Your task to perform on an android device: turn on the 12-hour format for clock Image 0: 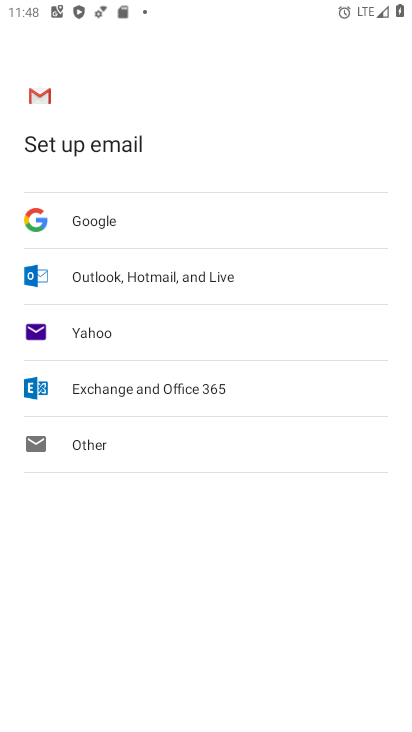
Step 0: press home button
Your task to perform on an android device: turn on the 12-hour format for clock Image 1: 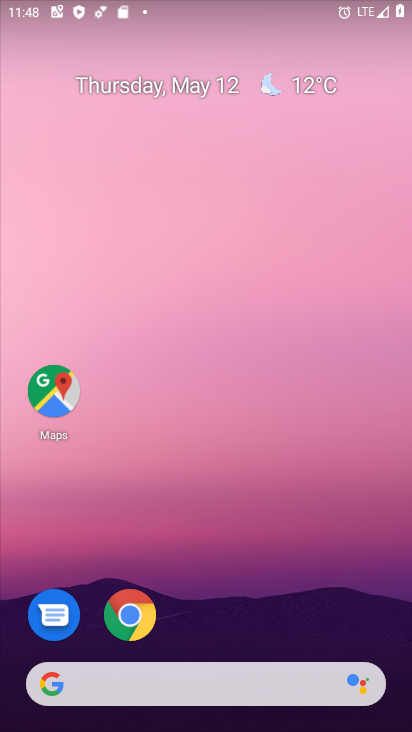
Step 1: drag from (214, 531) to (361, 66)
Your task to perform on an android device: turn on the 12-hour format for clock Image 2: 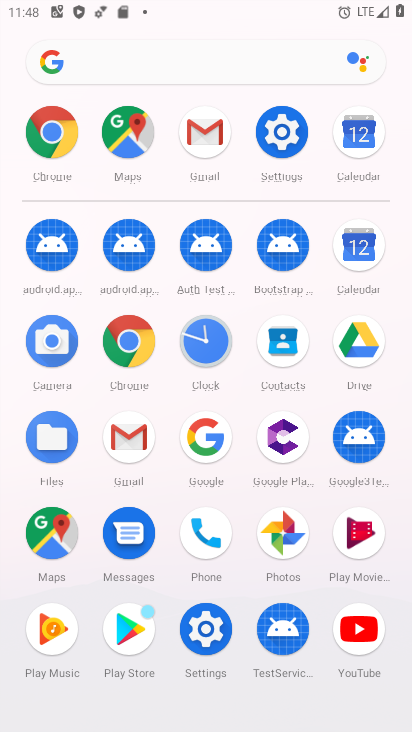
Step 2: click (189, 340)
Your task to perform on an android device: turn on the 12-hour format for clock Image 3: 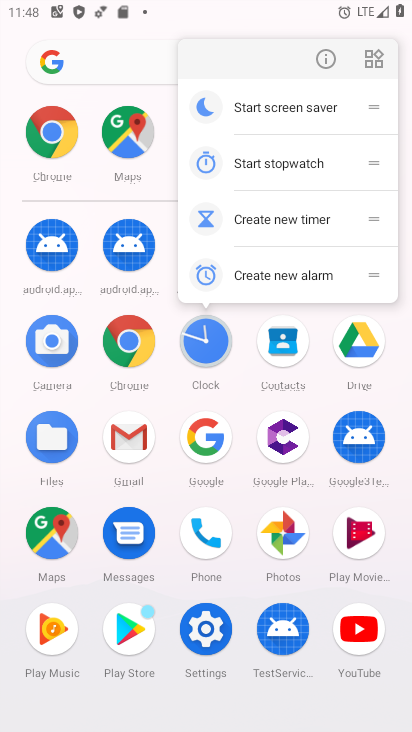
Step 3: click (213, 323)
Your task to perform on an android device: turn on the 12-hour format for clock Image 4: 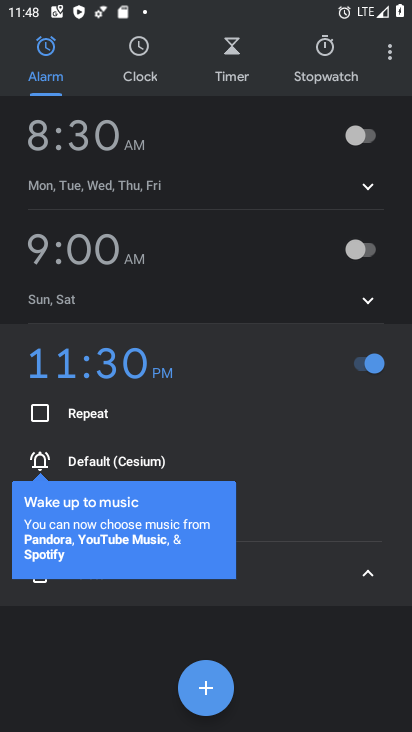
Step 4: click (389, 51)
Your task to perform on an android device: turn on the 12-hour format for clock Image 5: 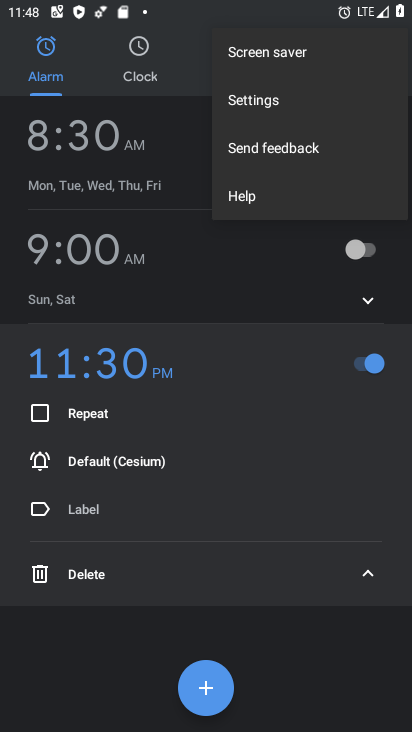
Step 5: click (331, 96)
Your task to perform on an android device: turn on the 12-hour format for clock Image 6: 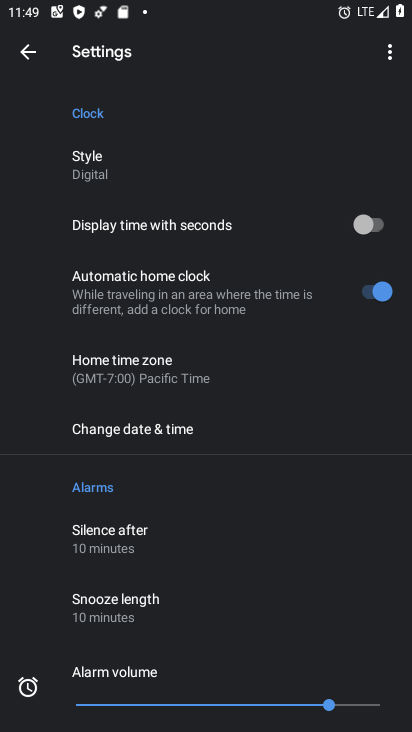
Step 6: click (243, 430)
Your task to perform on an android device: turn on the 12-hour format for clock Image 7: 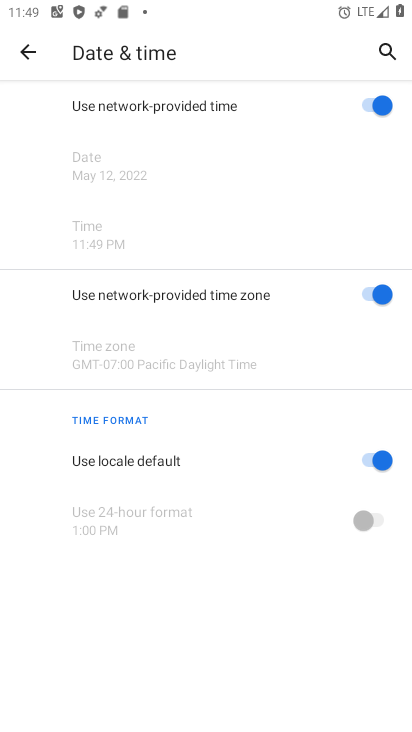
Step 7: task complete